Your task to perform on an android device: Open Google Chrome and click the shortcut for Amazon.com Image 0: 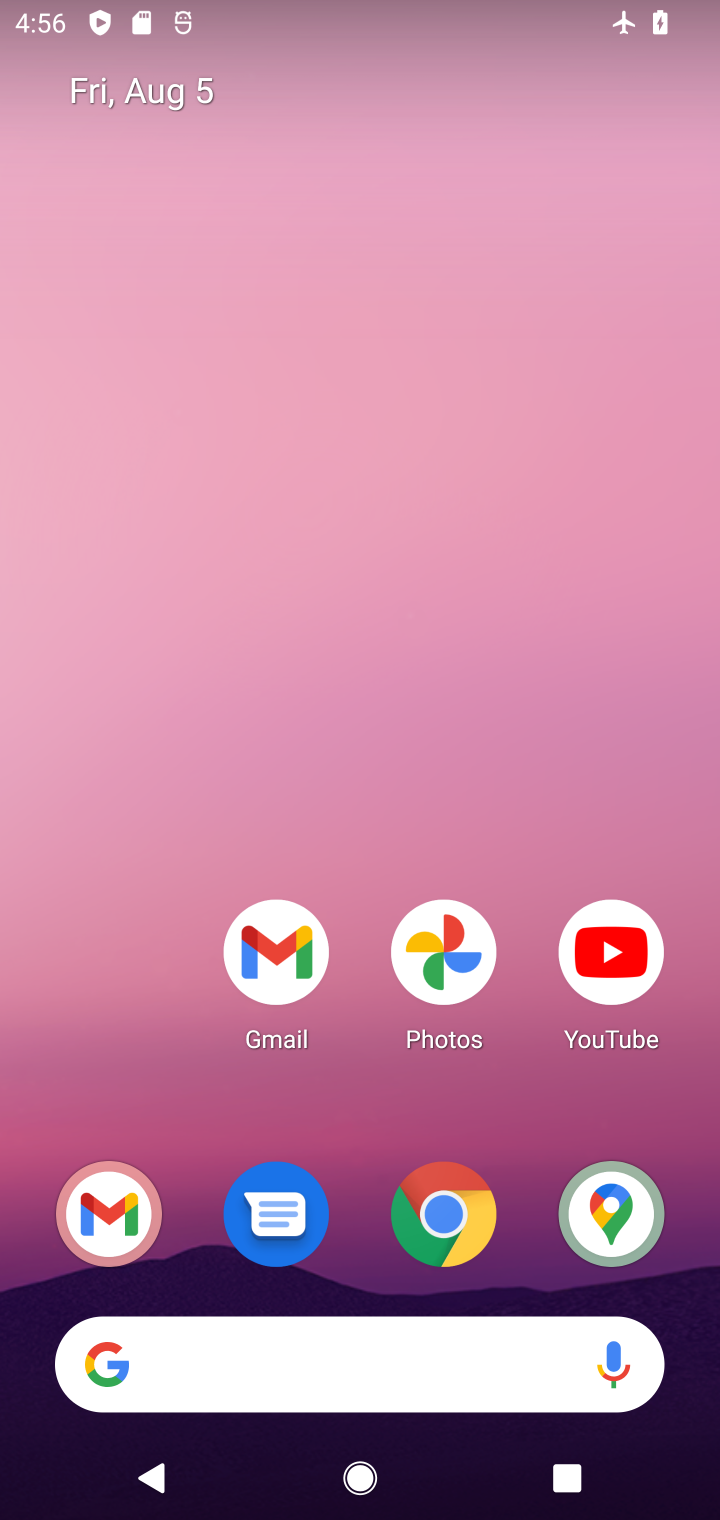
Step 0: click (460, 1198)
Your task to perform on an android device: Open Google Chrome and click the shortcut for Amazon.com Image 1: 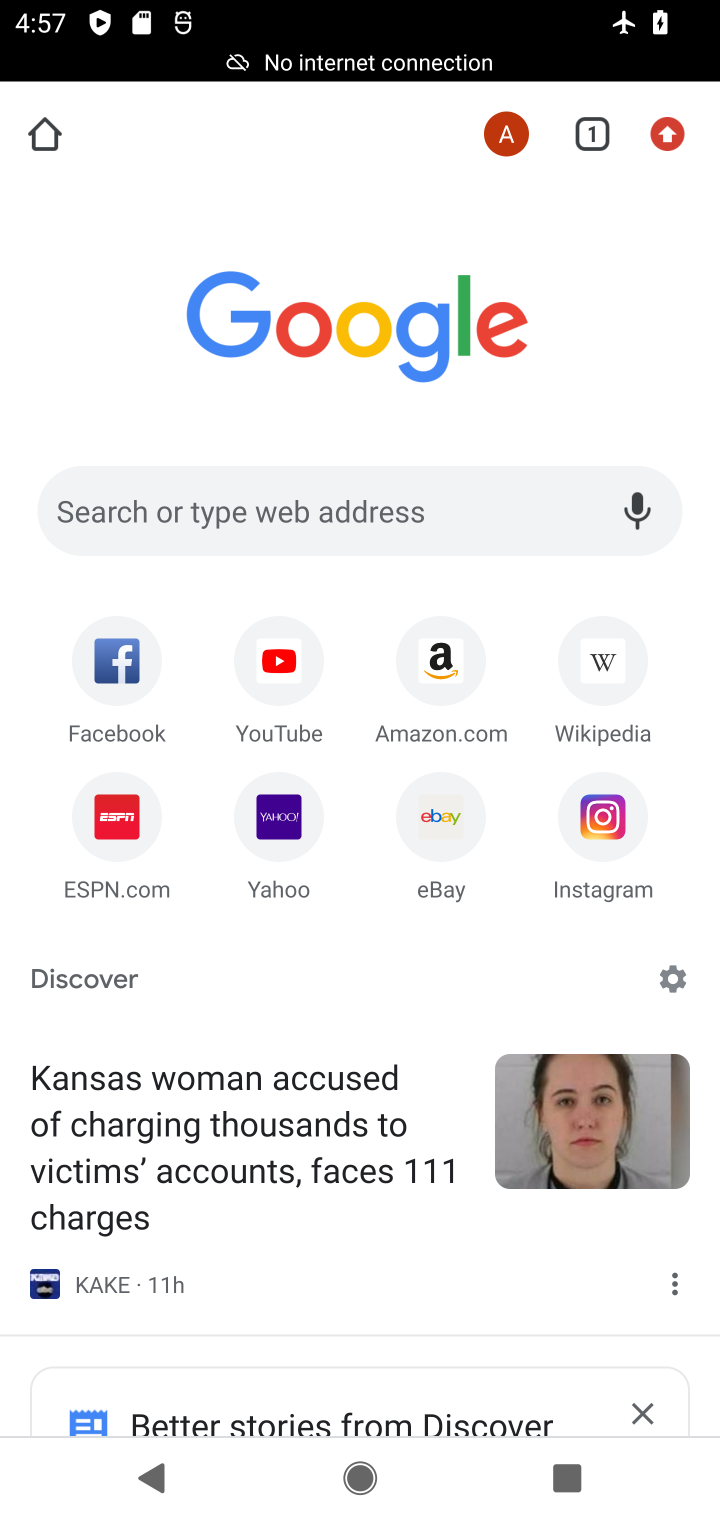
Step 1: click (447, 667)
Your task to perform on an android device: Open Google Chrome and click the shortcut for Amazon.com Image 2: 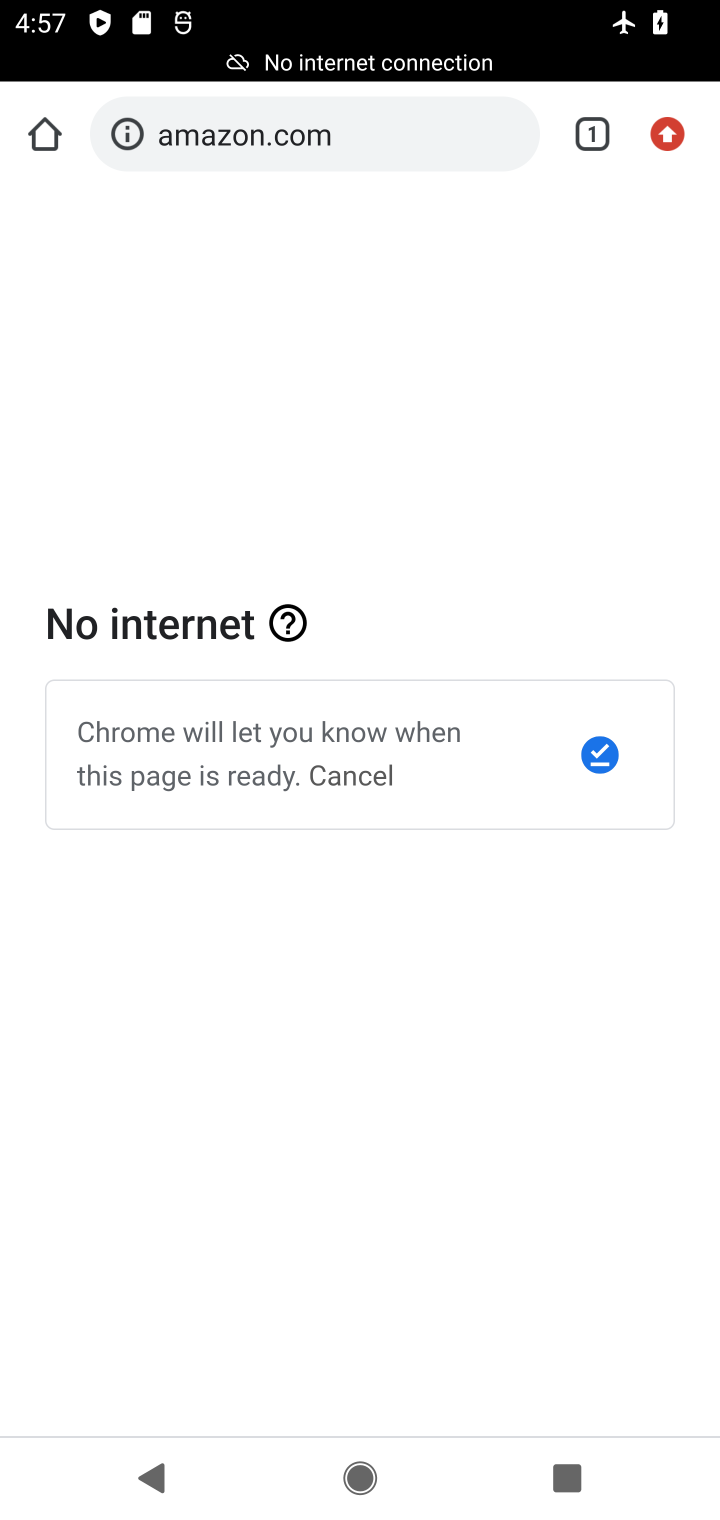
Step 2: task complete